Your task to perform on an android device: Show me popular videos on Youtube Image 0: 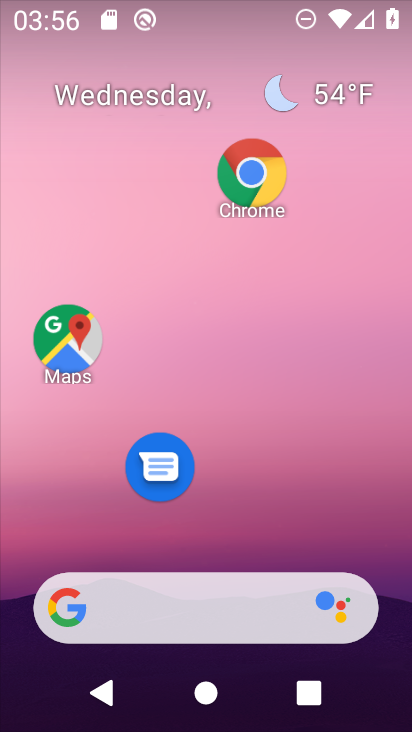
Step 0: drag from (166, 490) to (204, 120)
Your task to perform on an android device: Show me popular videos on Youtube Image 1: 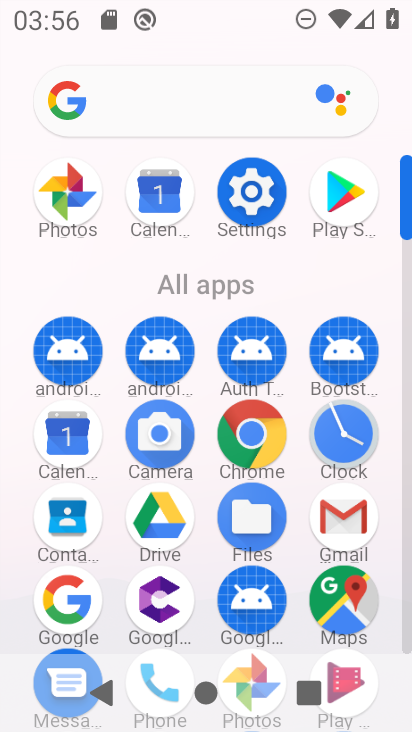
Step 1: drag from (157, 628) to (249, 56)
Your task to perform on an android device: Show me popular videos on Youtube Image 2: 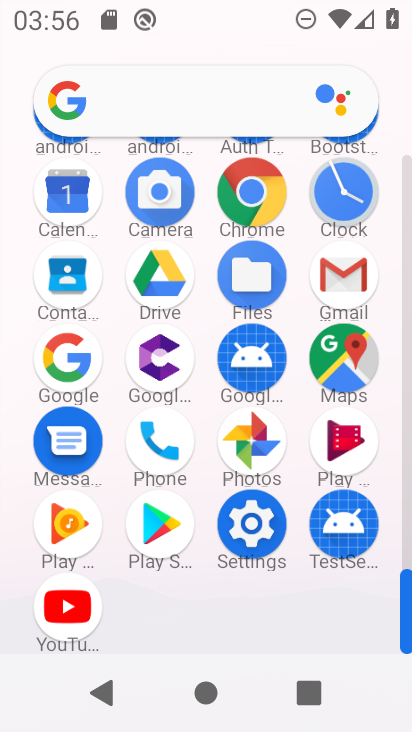
Step 2: click (67, 616)
Your task to perform on an android device: Show me popular videos on Youtube Image 3: 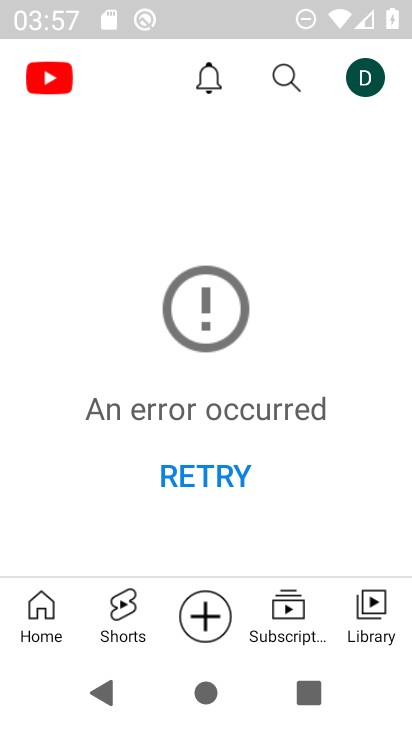
Step 3: click (42, 611)
Your task to perform on an android device: Show me popular videos on Youtube Image 4: 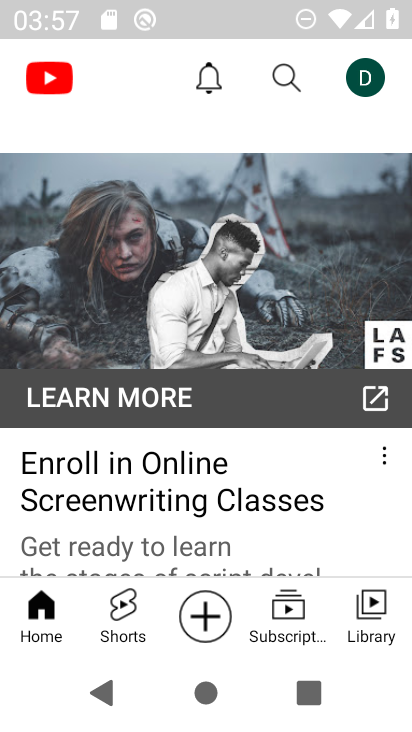
Step 4: click (80, 157)
Your task to perform on an android device: Show me popular videos on Youtube Image 5: 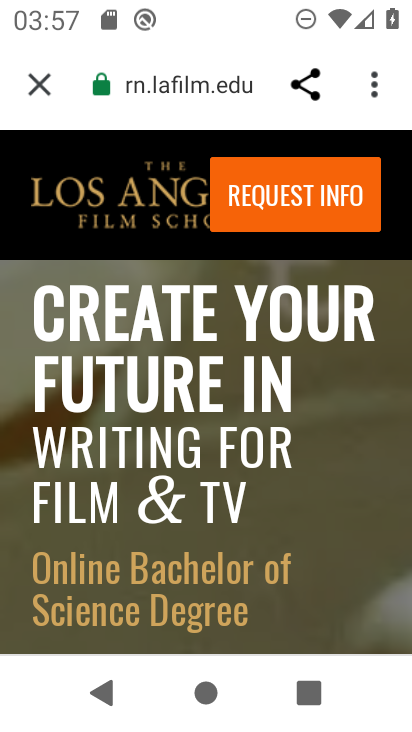
Step 5: click (33, 80)
Your task to perform on an android device: Show me popular videos on Youtube Image 6: 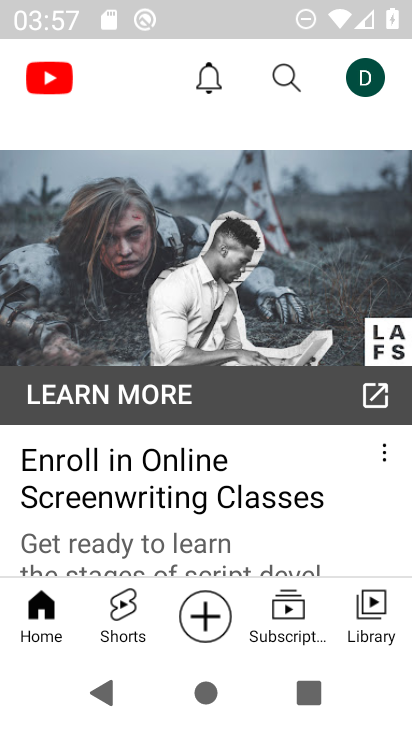
Step 6: drag from (129, 482) to (167, 661)
Your task to perform on an android device: Show me popular videos on Youtube Image 7: 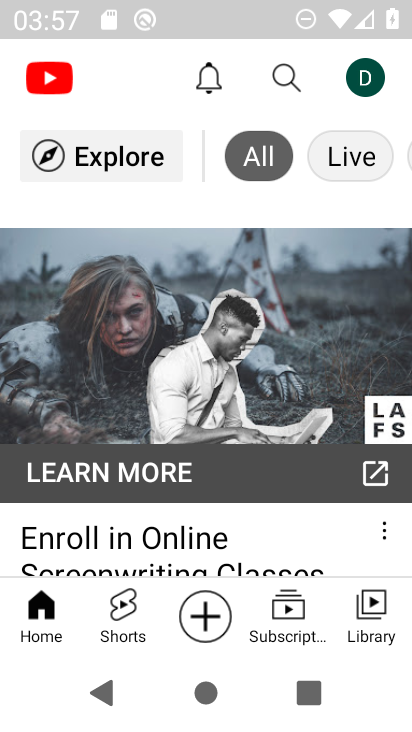
Step 7: click (78, 154)
Your task to perform on an android device: Show me popular videos on Youtube Image 8: 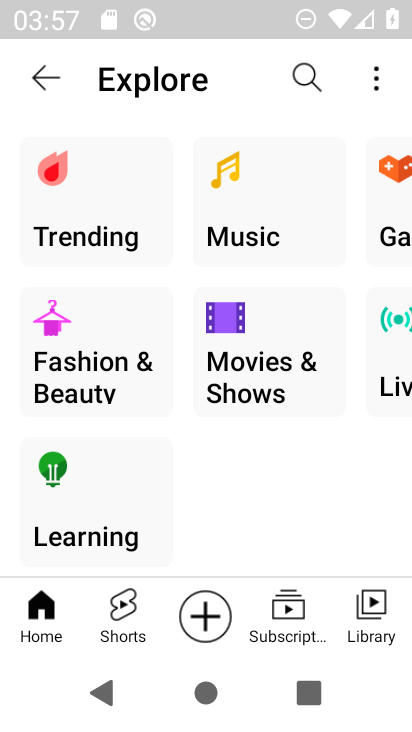
Step 8: click (72, 195)
Your task to perform on an android device: Show me popular videos on Youtube Image 9: 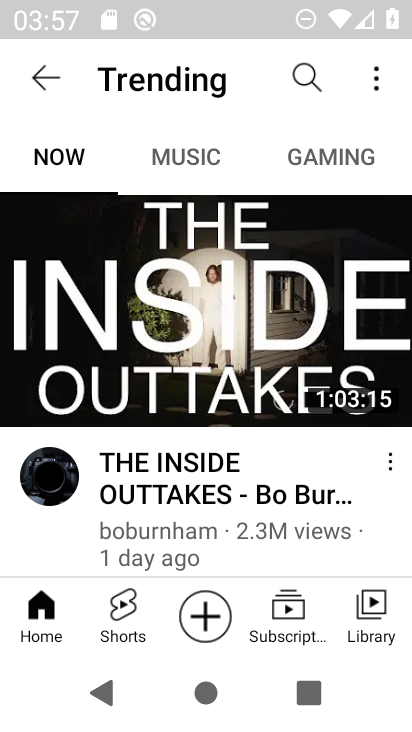
Step 9: click (189, 320)
Your task to perform on an android device: Show me popular videos on Youtube Image 10: 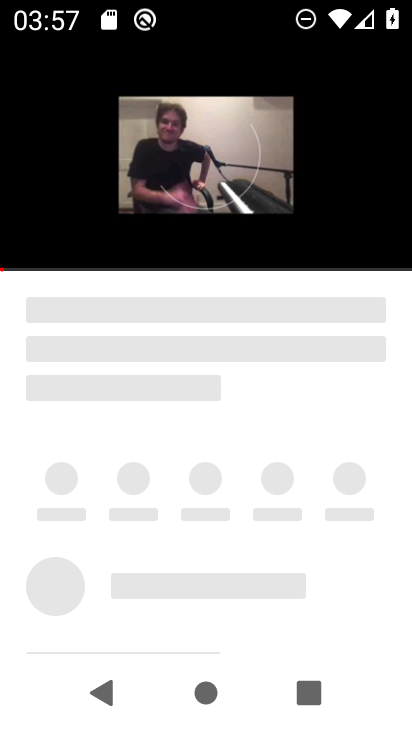
Step 10: click (189, 139)
Your task to perform on an android device: Show me popular videos on Youtube Image 11: 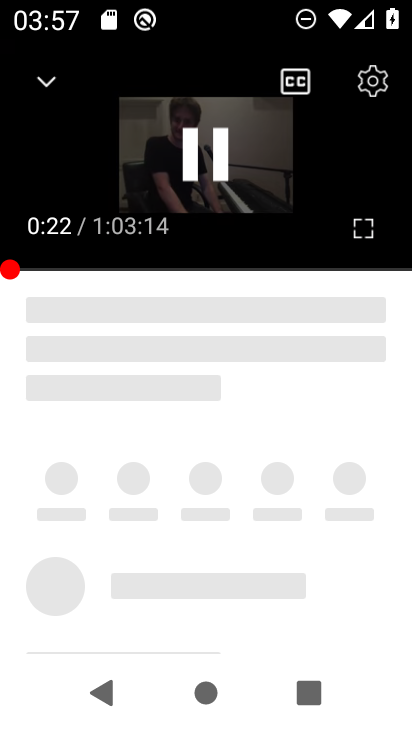
Step 11: click (189, 139)
Your task to perform on an android device: Show me popular videos on Youtube Image 12: 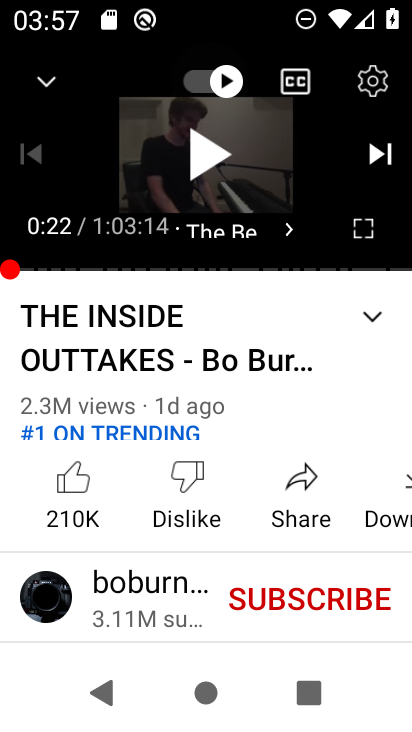
Step 12: task complete